Your task to perform on an android device: check battery use Image 0: 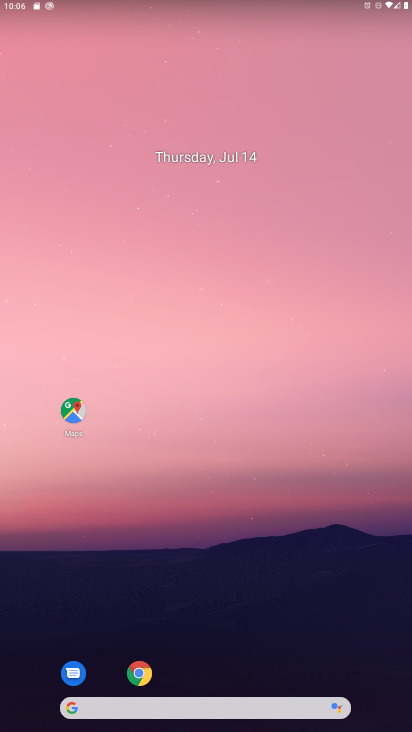
Step 0: drag from (263, 704) to (295, 219)
Your task to perform on an android device: check battery use Image 1: 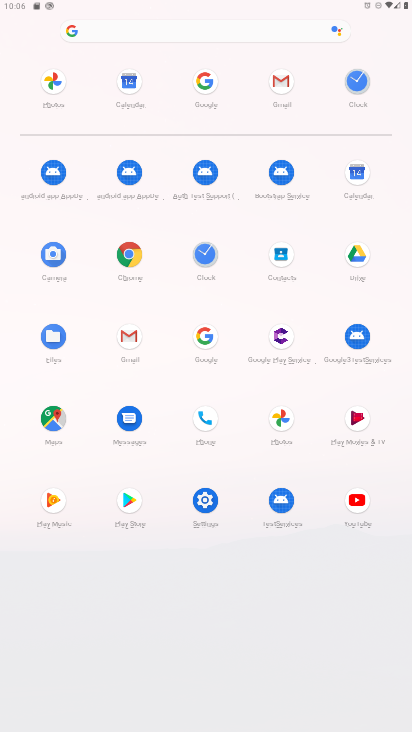
Step 1: click (205, 499)
Your task to perform on an android device: check battery use Image 2: 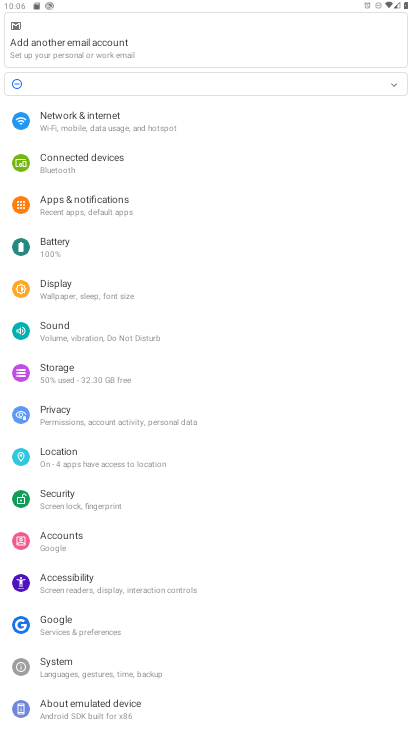
Step 2: click (54, 251)
Your task to perform on an android device: check battery use Image 3: 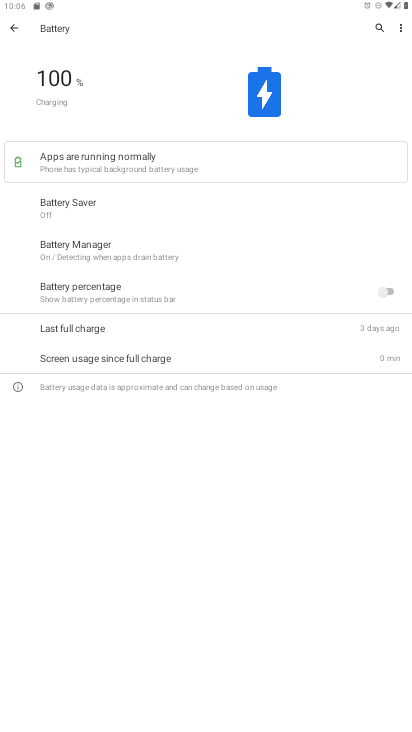
Step 3: click (402, 28)
Your task to perform on an android device: check battery use Image 4: 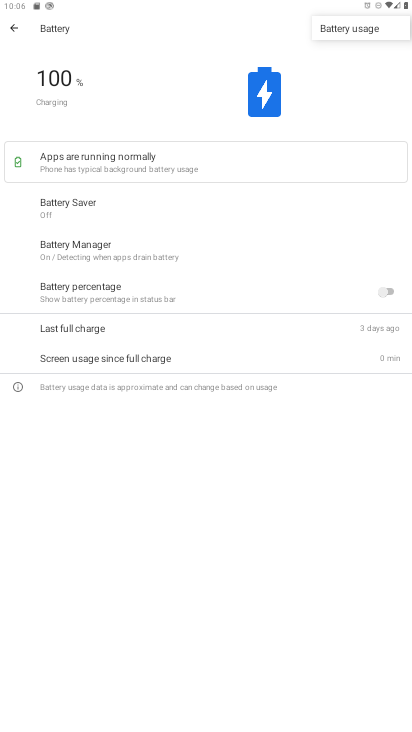
Step 4: click (367, 23)
Your task to perform on an android device: check battery use Image 5: 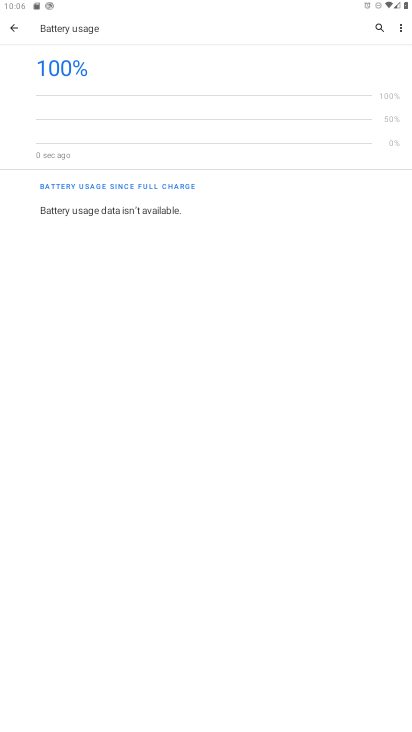
Step 5: task complete